Your task to perform on an android device: Open settings on Google Maps Image 0: 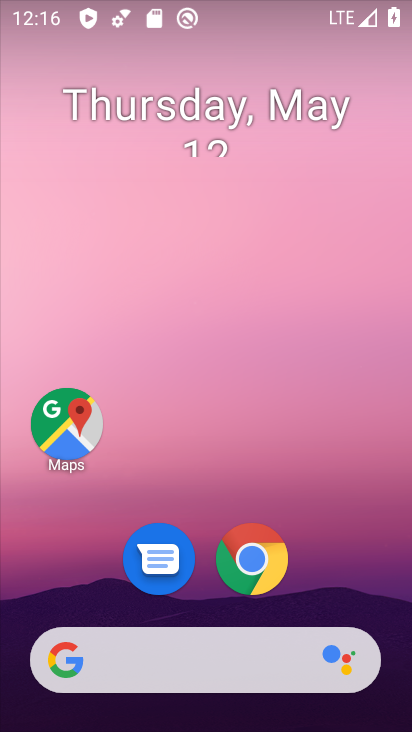
Step 0: click (84, 435)
Your task to perform on an android device: Open settings on Google Maps Image 1: 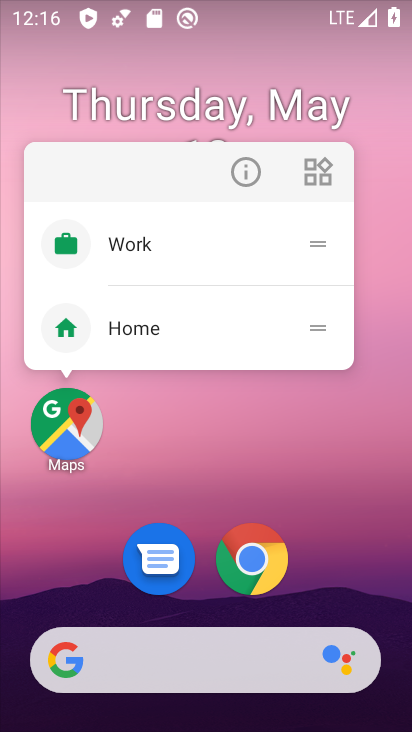
Step 1: click (82, 430)
Your task to perform on an android device: Open settings on Google Maps Image 2: 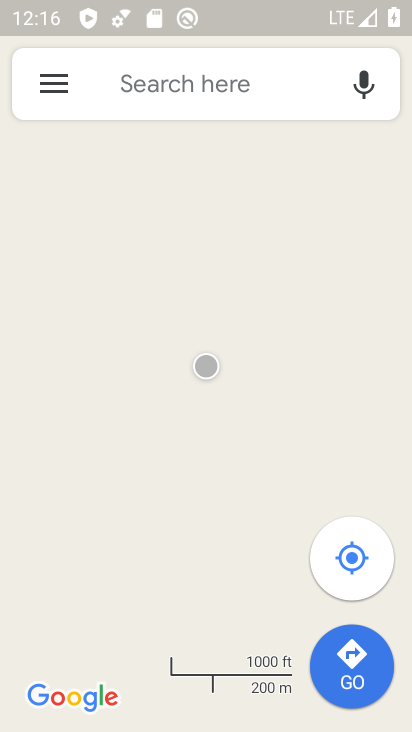
Step 2: click (69, 81)
Your task to perform on an android device: Open settings on Google Maps Image 3: 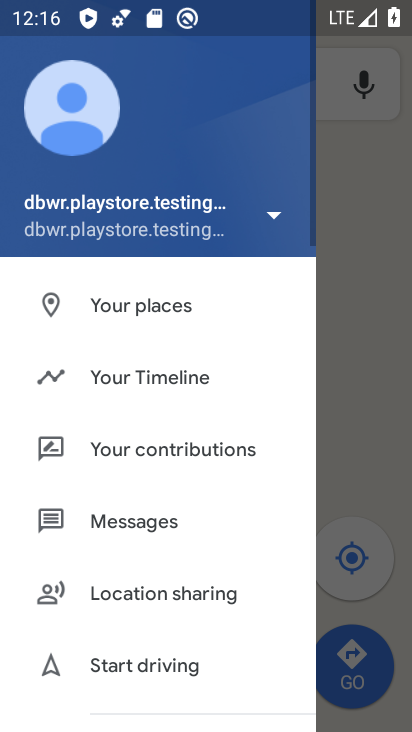
Step 3: drag from (111, 599) to (197, 171)
Your task to perform on an android device: Open settings on Google Maps Image 4: 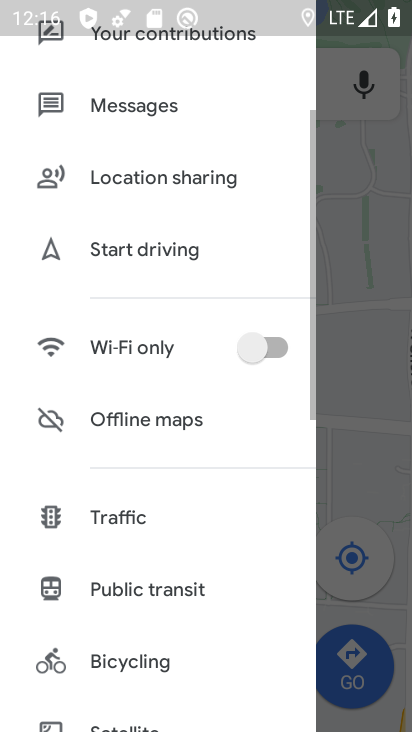
Step 4: drag from (135, 709) to (210, 389)
Your task to perform on an android device: Open settings on Google Maps Image 5: 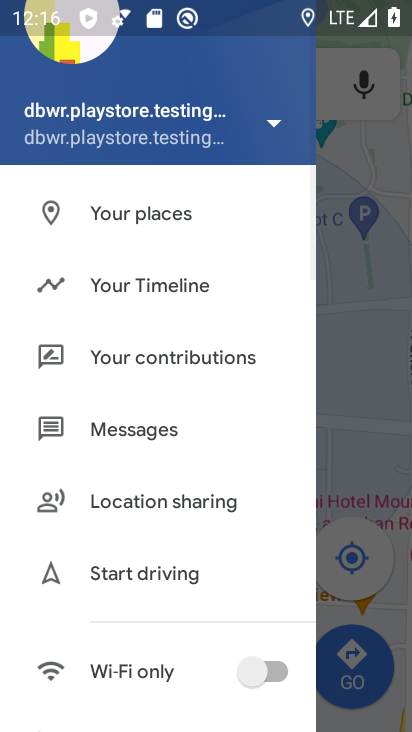
Step 5: drag from (182, 582) to (346, 32)
Your task to perform on an android device: Open settings on Google Maps Image 6: 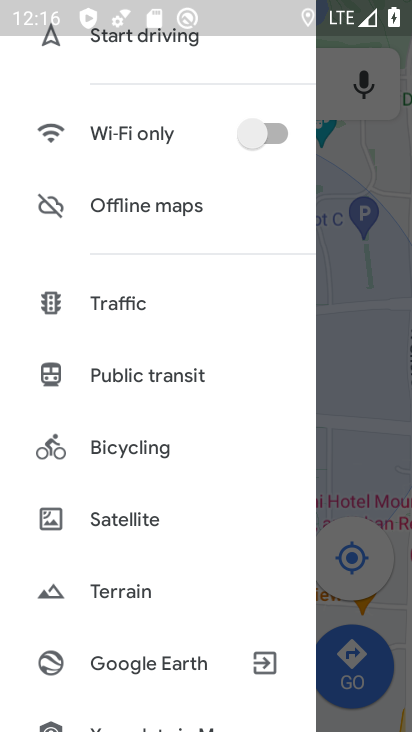
Step 6: drag from (168, 675) to (255, 215)
Your task to perform on an android device: Open settings on Google Maps Image 7: 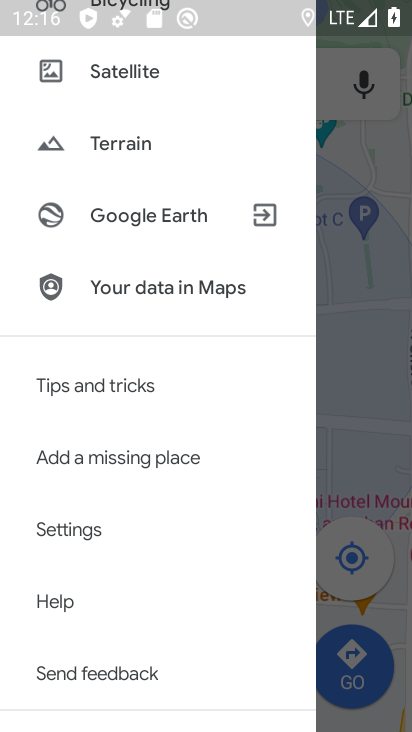
Step 7: click (134, 537)
Your task to perform on an android device: Open settings on Google Maps Image 8: 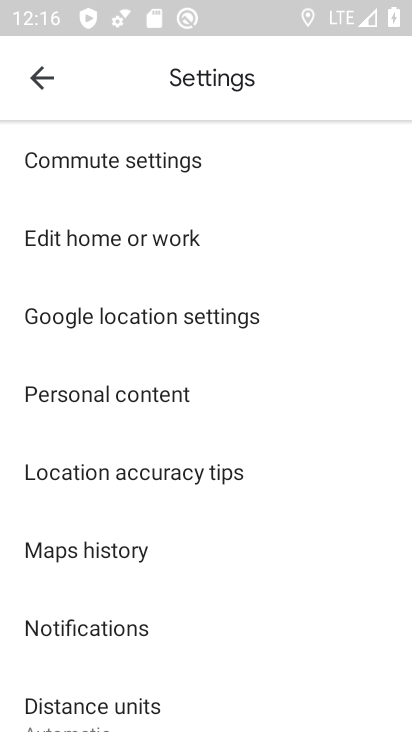
Step 8: task complete